Your task to perform on an android device: open chrome privacy settings Image 0: 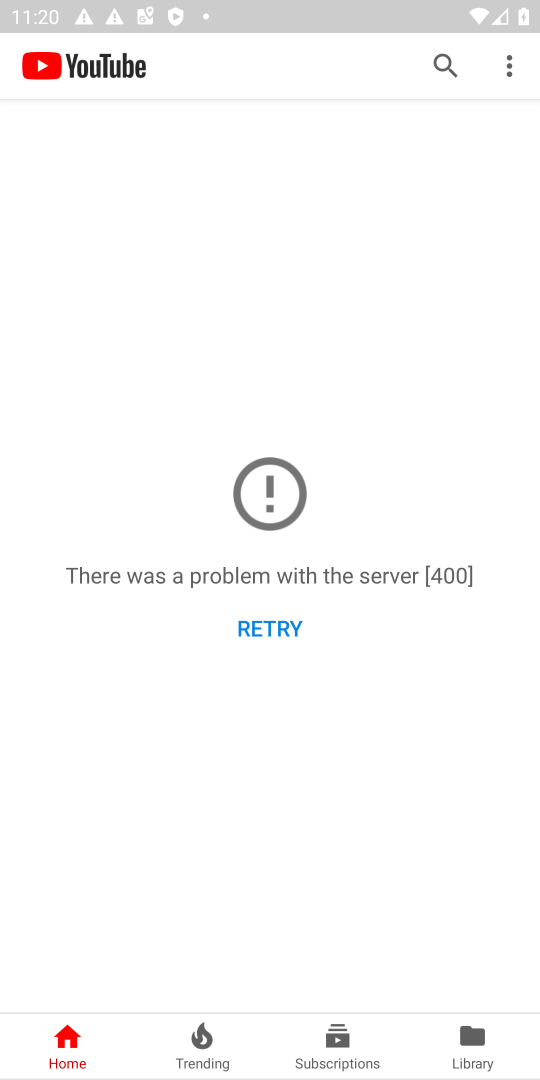
Step 0: press home button
Your task to perform on an android device: open chrome privacy settings Image 1: 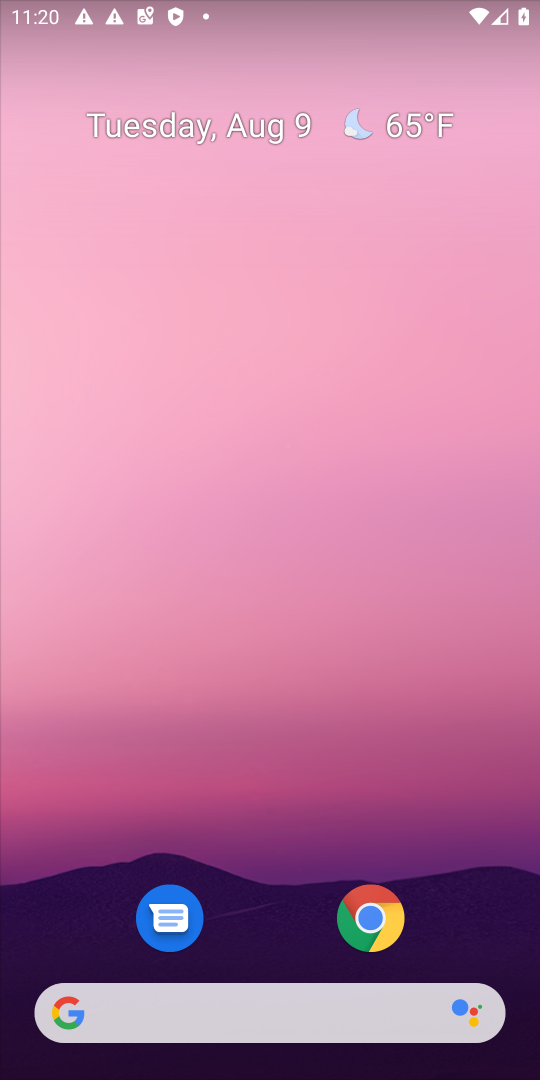
Step 1: drag from (243, 787) to (344, 212)
Your task to perform on an android device: open chrome privacy settings Image 2: 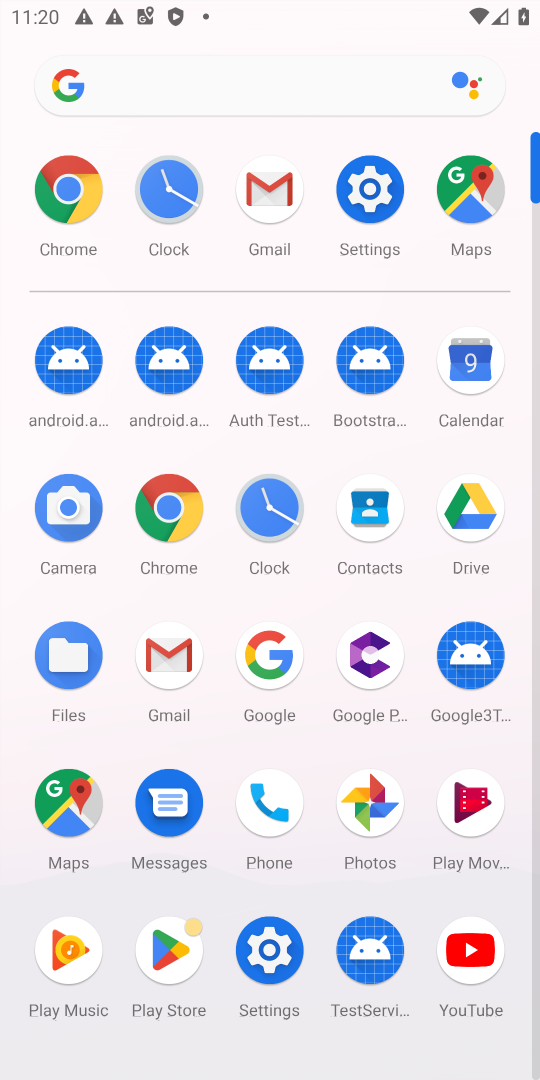
Step 2: click (170, 508)
Your task to perform on an android device: open chrome privacy settings Image 3: 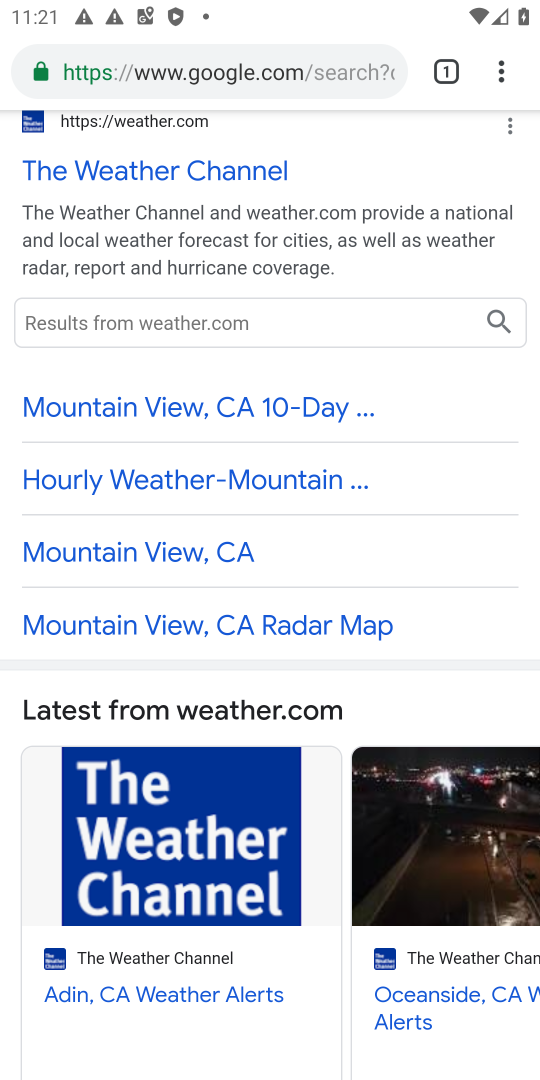
Step 3: drag from (505, 63) to (263, 886)
Your task to perform on an android device: open chrome privacy settings Image 4: 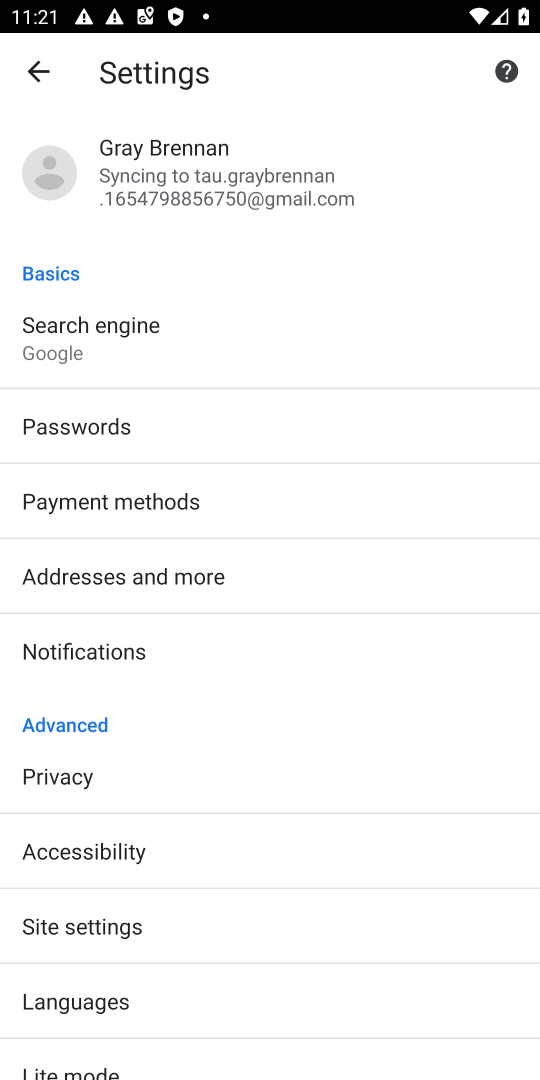
Step 4: drag from (263, 886) to (331, 374)
Your task to perform on an android device: open chrome privacy settings Image 5: 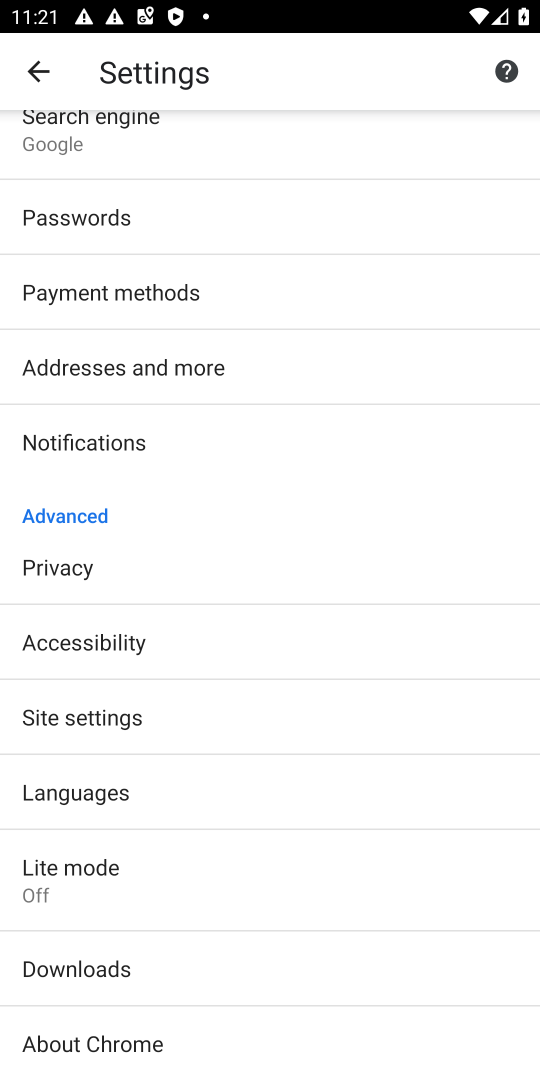
Step 5: click (73, 554)
Your task to perform on an android device: open chrome privacy settings Image 6: 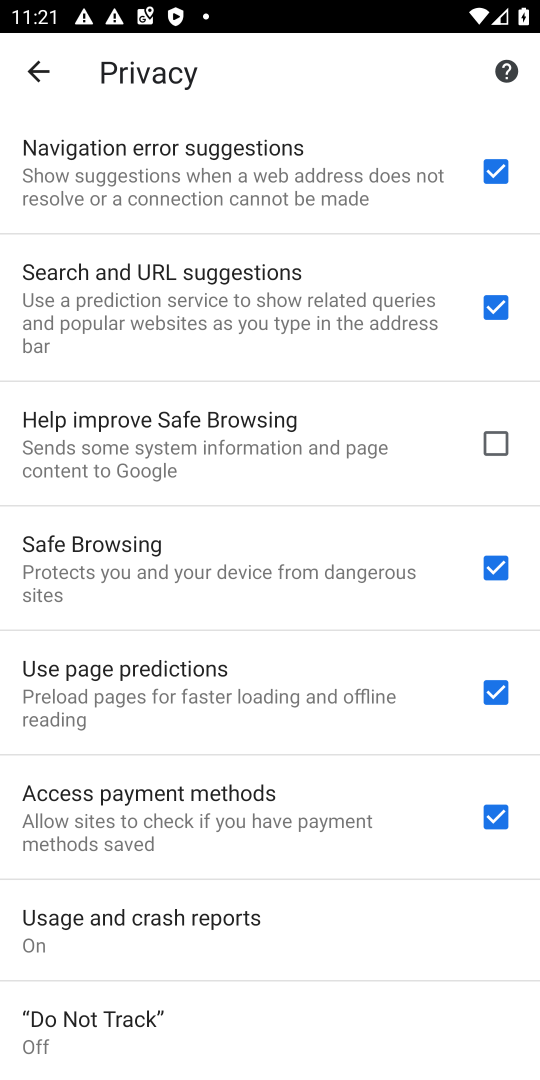
Step 6: task complete